Your task to perform on an android device: Go to internet settings Image 0: 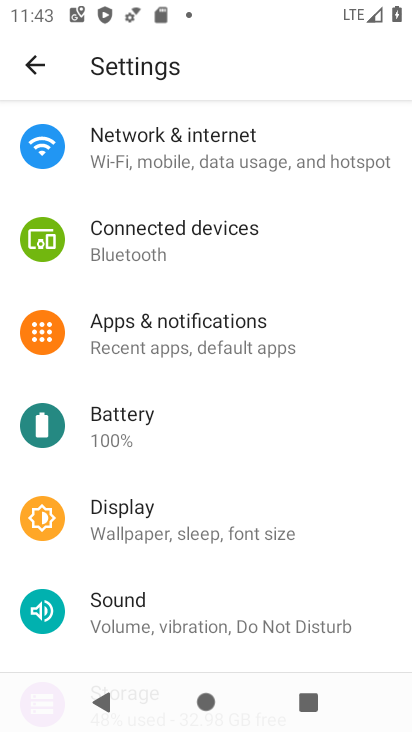
Step 0: press home button
Your task to perform on an android device: Go to internet settings Image 1: 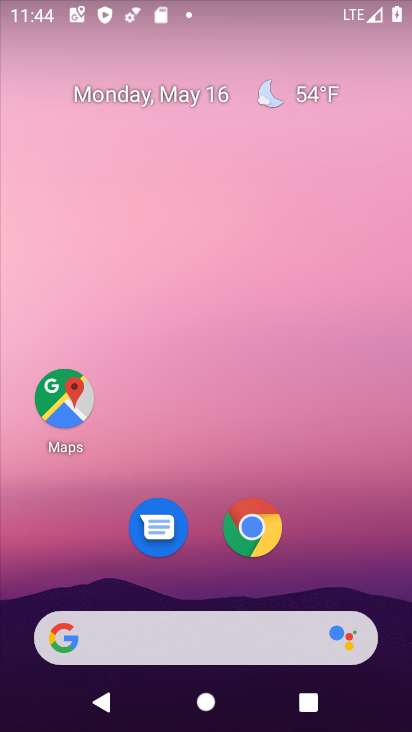
Step 1: drag from (273, 674) to (197, 295)
Your task to perform on an android device: Go to internet settings Image 2: 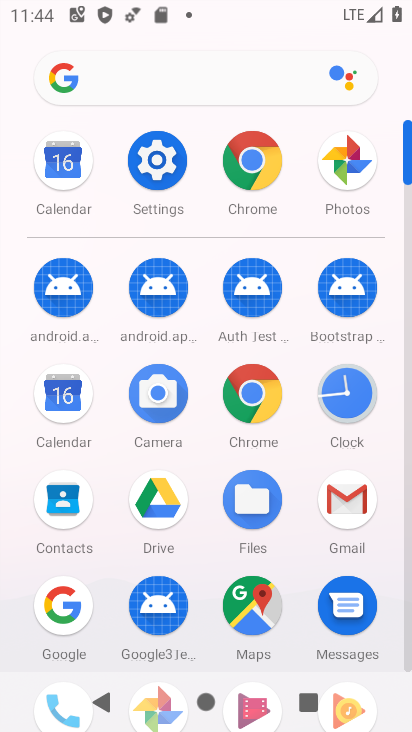
Step 2: click (148, 183)
Your task to perform on an android device: Go to internet settings Image 3: 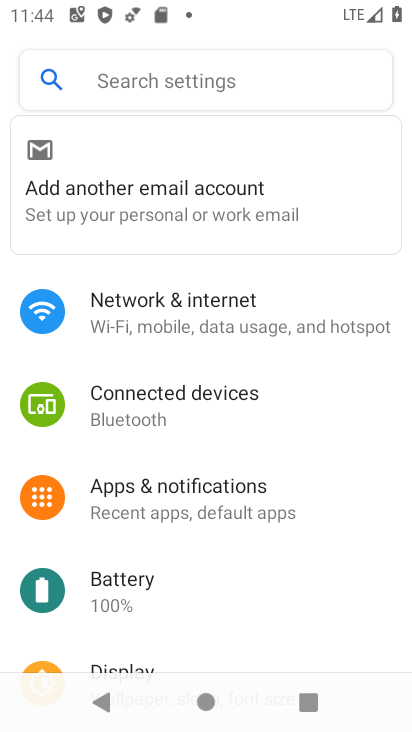
Step 3: click (167, 341)
Your task to perform on an android device: Go to internet settings Image 4: 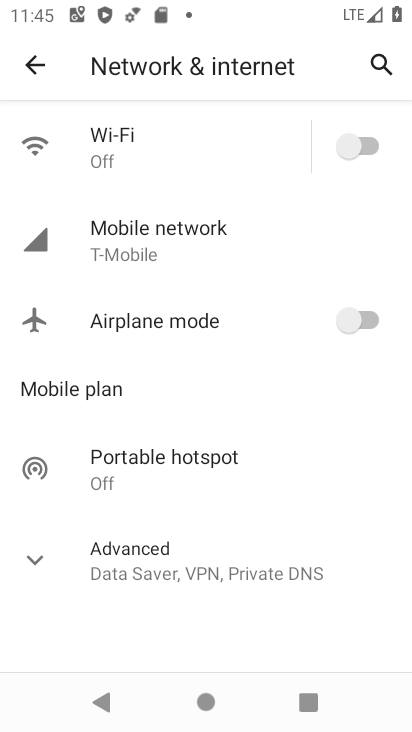
Step 4: task complete